Your task to perform on an android device: Open the stopwatch Image 0: 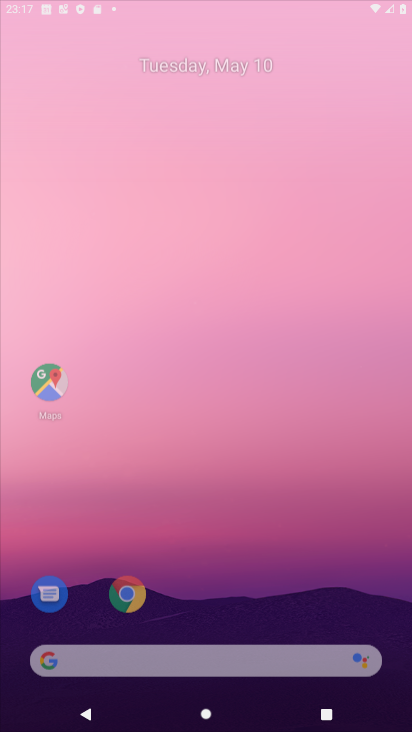
Step 0: drag from (254, 483) to (216, 241)
Your task to perform on an android device: Open the stopwatch Image 1: 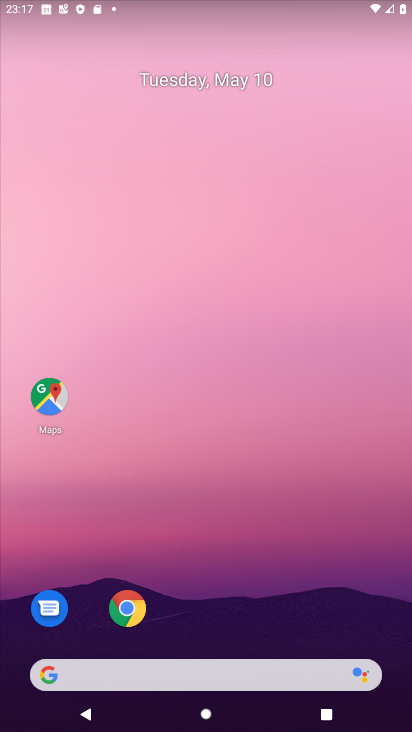
Step 1: drag from (279, 647) to (275, 283)
Your task to perform on an android device: Open the stopwatch Image 2: 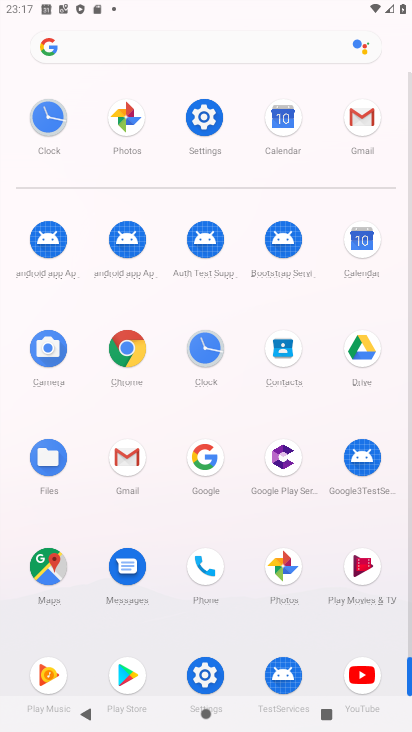
Step 2: click (193, 338)
Your task to perform on an android device: Open the stopwatch Image 3: 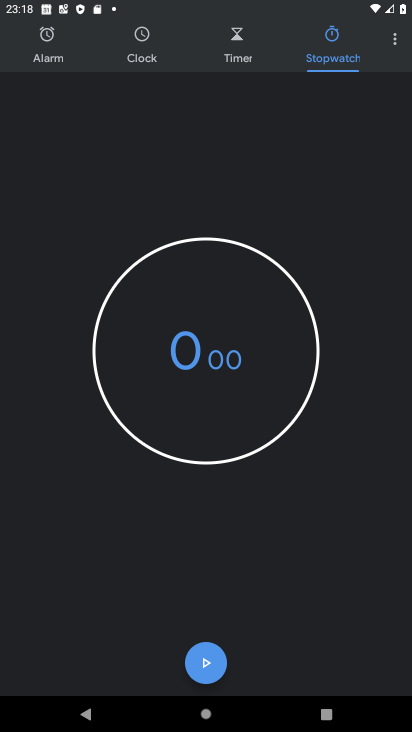
Step 3: task complete